Your task to perform on an android device: Go to location settings Image 0: 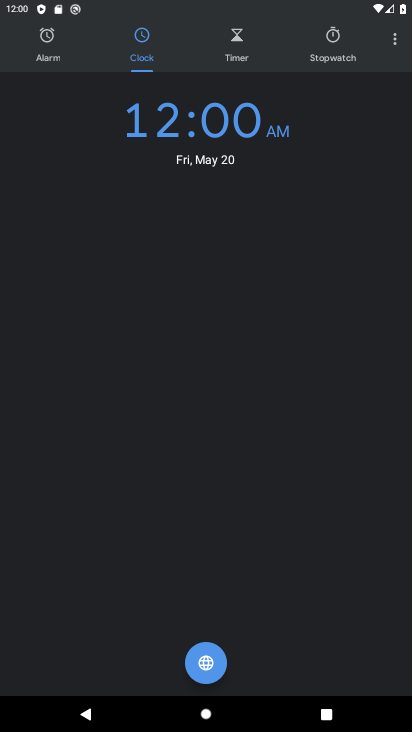
Step 0: press home button
Your task to perform on an android device: Go to location settings Image 1: 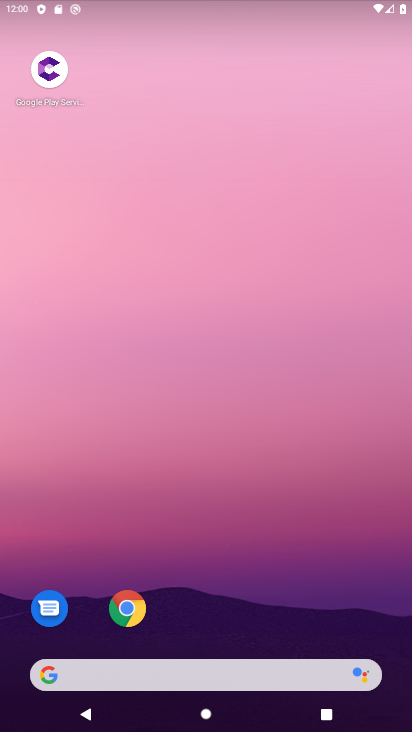
Step 1: drag from (357, 624) to (283, 200)
Your task to perform on an android device: Go to location settings Image 2: 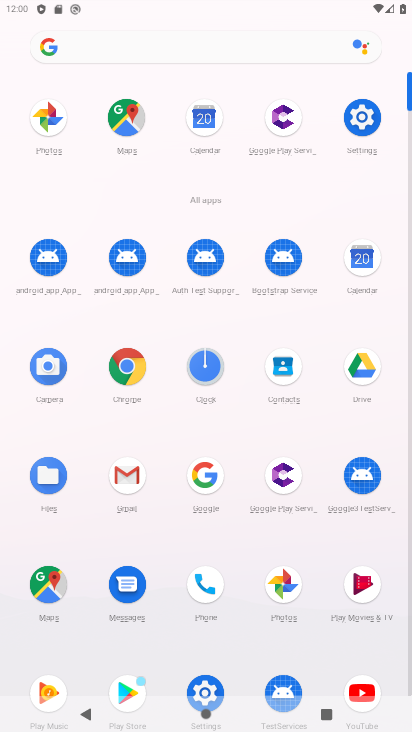
Step 2: click (365, 116)
Your task to perform on an android device: Go to location settings Image 3: 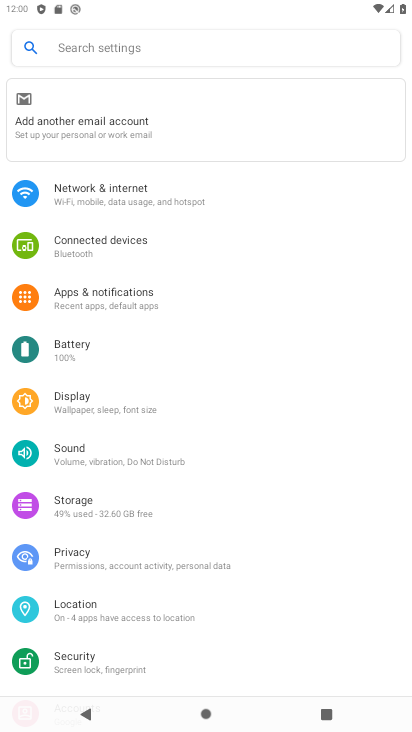
Step 3: click (104, 608)
Your task to perform on an android device: Go to location settings Image 4: 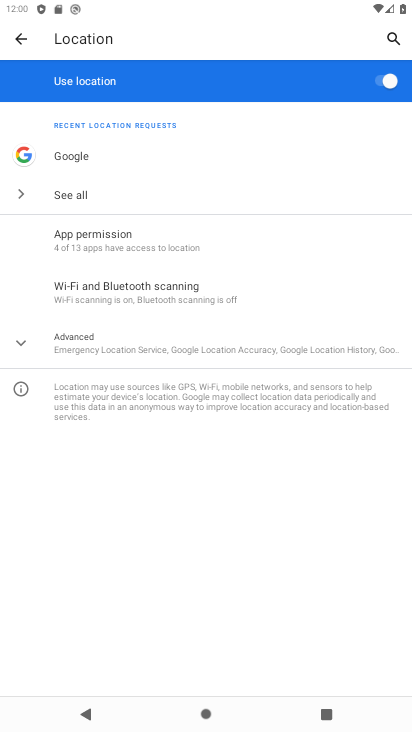
Step 4: task complete